Your task to perform on an android device: delete the emails in spam in the gmail app Image 0: 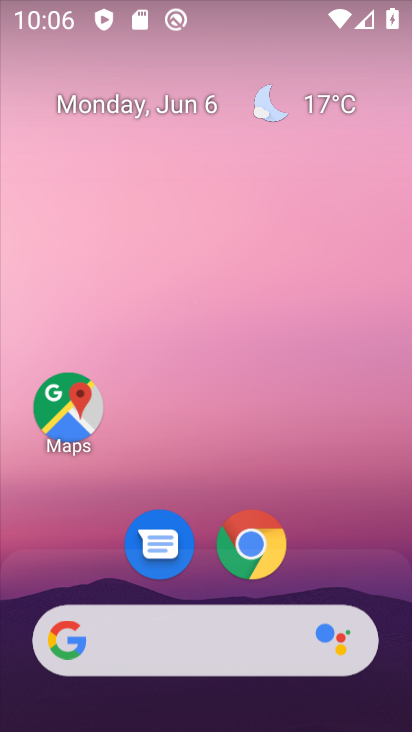
Step 0: drag from (94, 559) to (225, 72)
Your task to perform on an android device: delete the emails in spam in the gmail app Image 1: 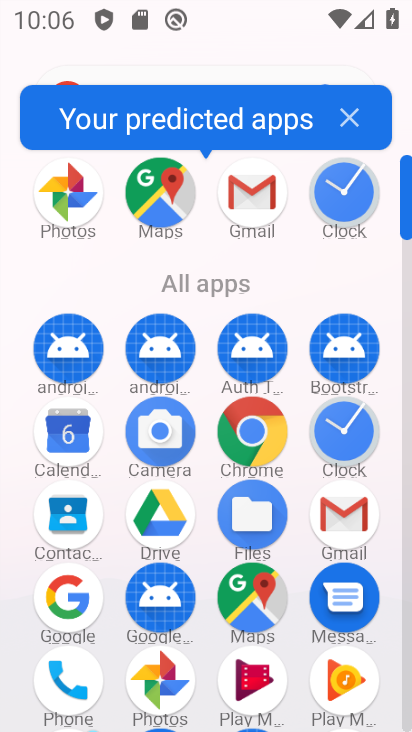
Step 1: click (342, 537)
Your task to perform on an android device: delete the emails in spam in the gmail app Image 2: 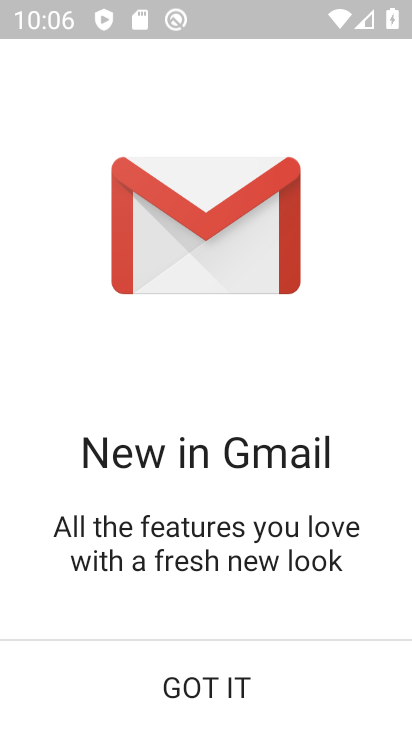
Step 2: click (246, 717)
Your task to perform on an android device: delete the emails in spam in the gmail app Image 3: 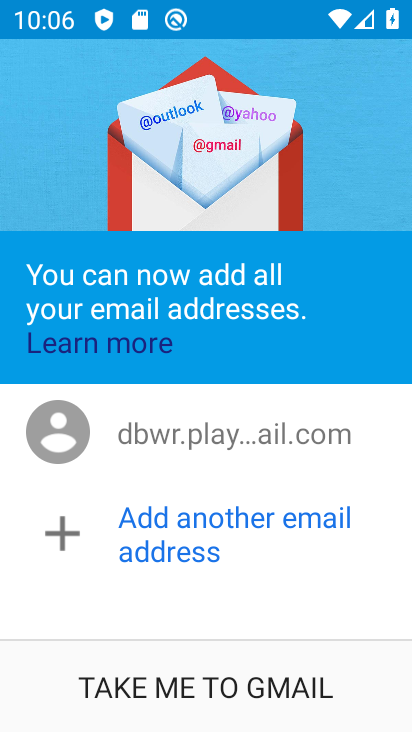
Step 3: click (265, 703)
Your task to perform on an android device: delete the emails in spam in the gmail app Image 4: 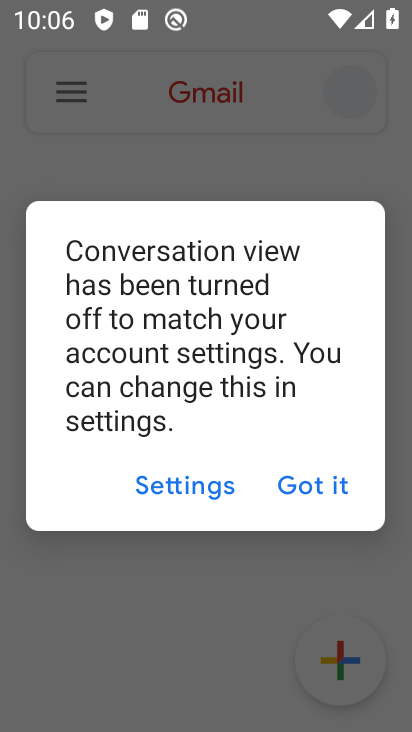
Step 4: click (340, 491)
Your task to perform on an android device: delete the emails in spam in the gmail app Image 5: 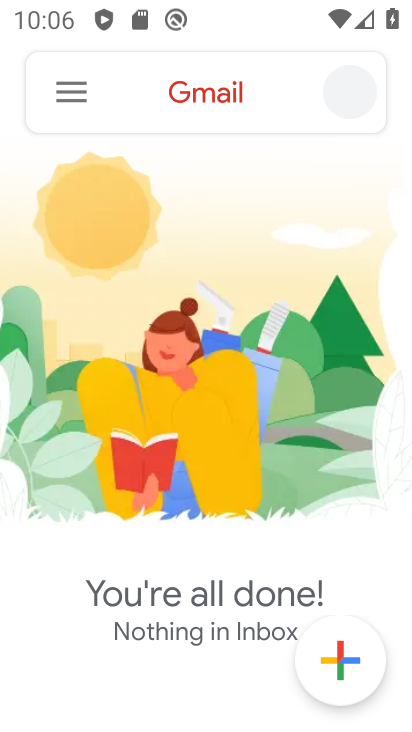
Step 5: click (310, 490)
Your task to perform on an android device: delete the emails in spam in the gmail app Image 6: 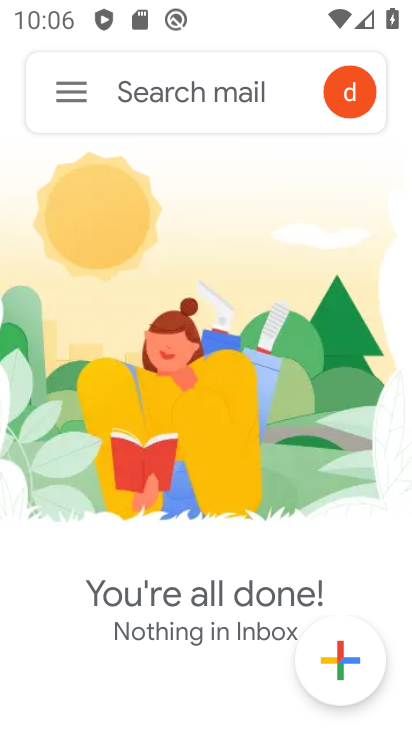
Step 6: click (86, 85)
Your task to perform on an android device: delete the emails in spam in the gmail app Image 7: 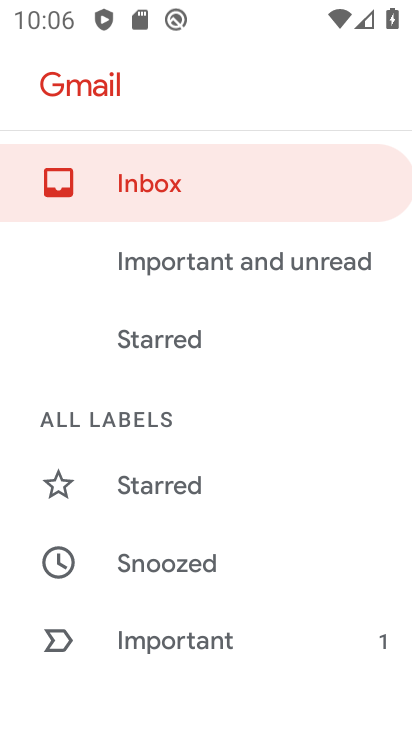
Step 7: drag from (180, 565) to (293, 146)
Your task to perform on an android device: delete the emails in spam in the gmail app Image 8: 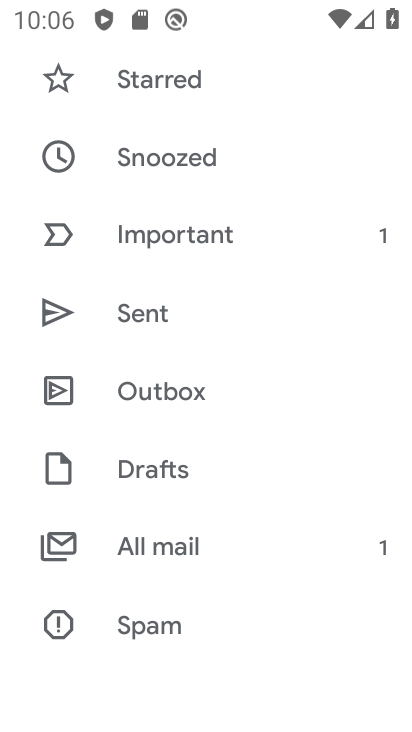
Step 8: click (175, 624)
Your task to perform on an android device: delete the emails in spam in the gmail app Image 9: 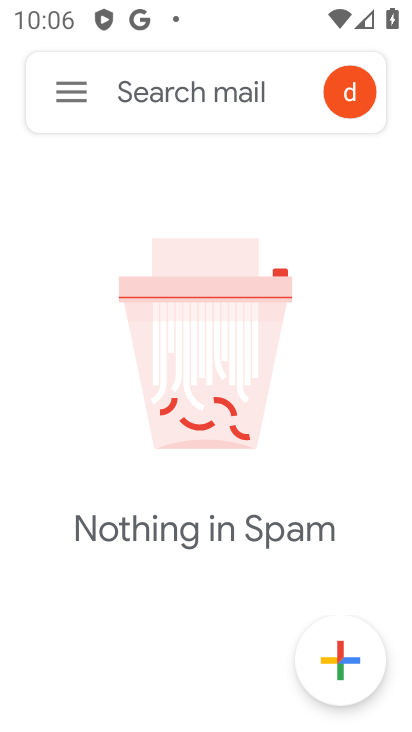
Step 9: task complete